Your task to perform on an android device: Open the map Image 0: 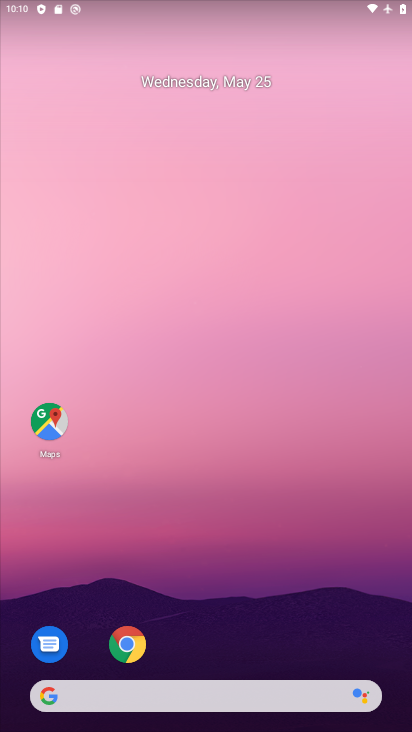
Step 0: drag from (244, 627) to (209, 167)
Your task to perform on an android device: Open the map Image 1: 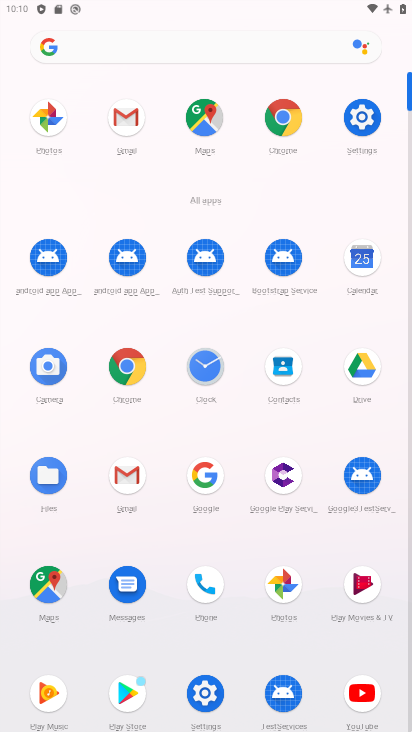
Step 1: click (47, 582)
Your task to perform on an android device: Open the map Image 2: 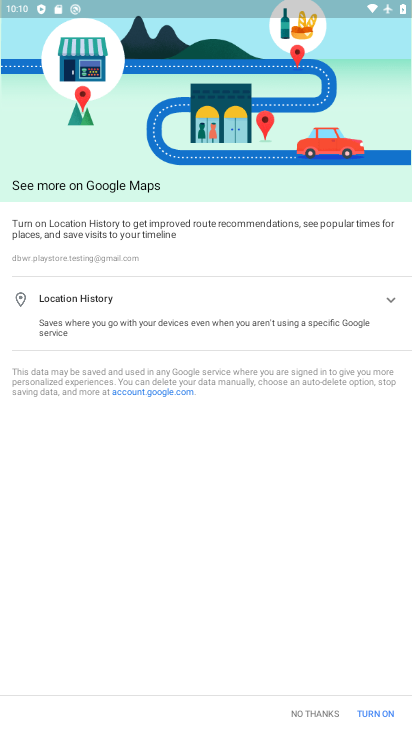
Step 2: task complete